Your task to perform on an android device: change notifications settings Image 0: 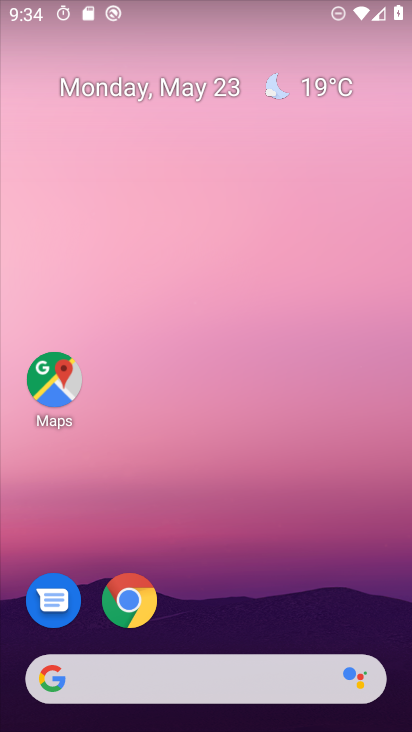
Step 0: press home button
Your task to perform on an android device: change notifications settings Image 1: 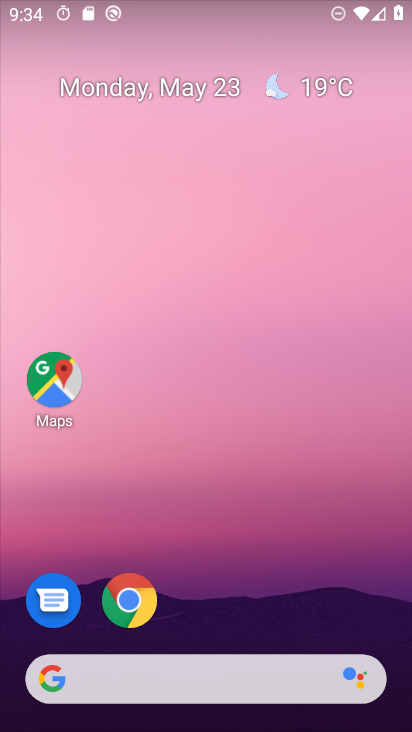
Step 1: drag from (23, 592) to (229, 78)
Your task to perform on an android device: change notifications settings Image 2: 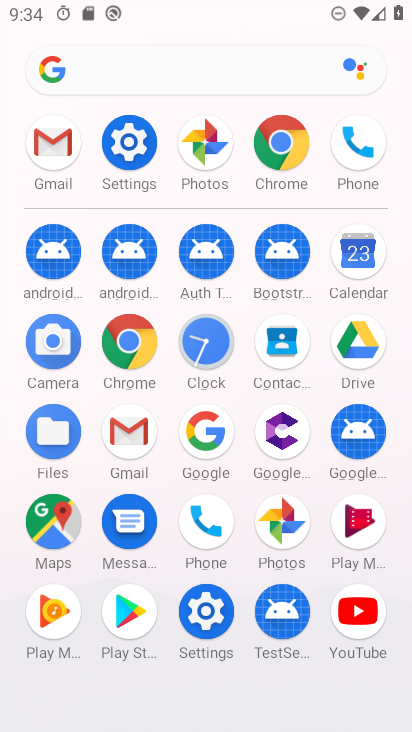
Step 2: click (118, 138)
Your task to perform on an android device: change notifications settings Image 3: 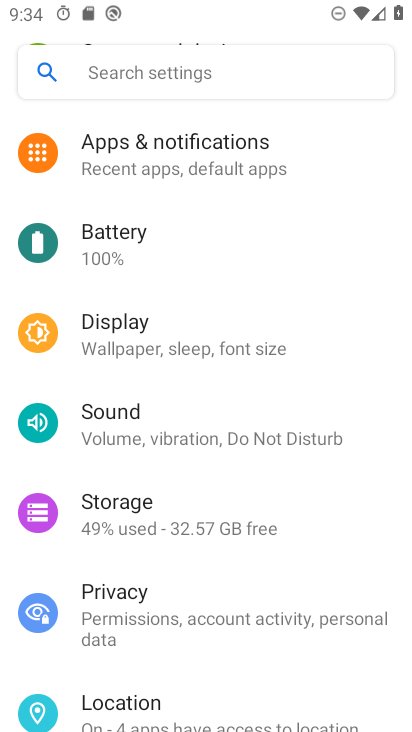
Step 3: click (258, 153)
Your task to perform on an android device: change notifications settings Image 4: 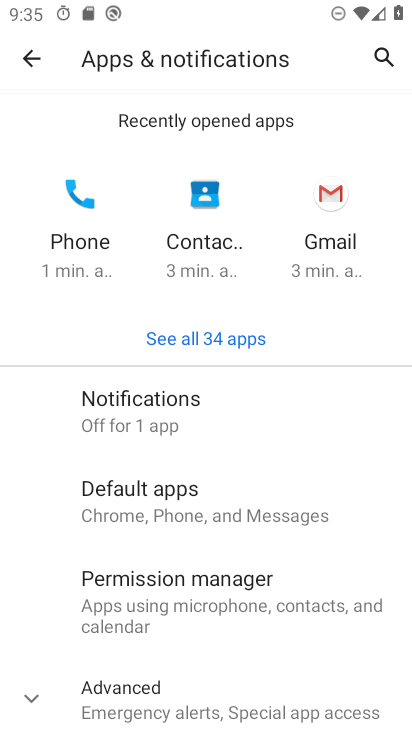
Step 4: click (197, 421)
Your task to perform on an android device: change notifications settings Image 5: 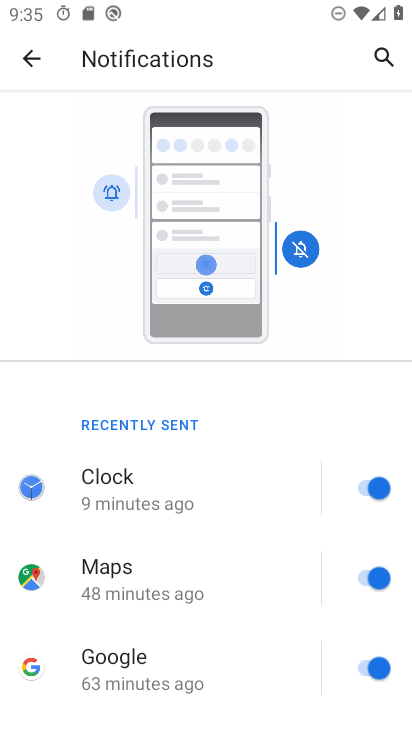
Step 5: click (373, 490)
Your task to perform on an android device: change notifications settings Image 6: 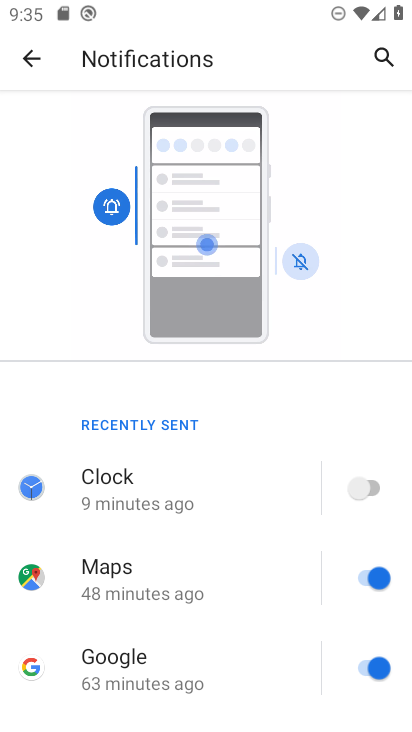
Step 6: task complete